Your task to perform on an android device: Open Wikipedia Image 0: 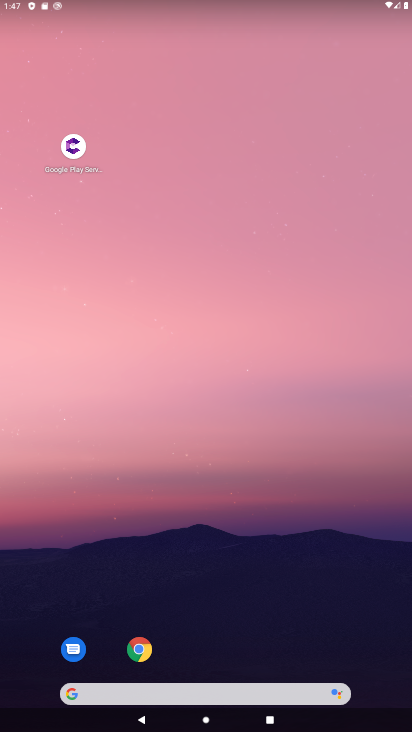
Step 0: click (140, 649)
Your task to perform on an android device: Open Wikipedia Image 1: 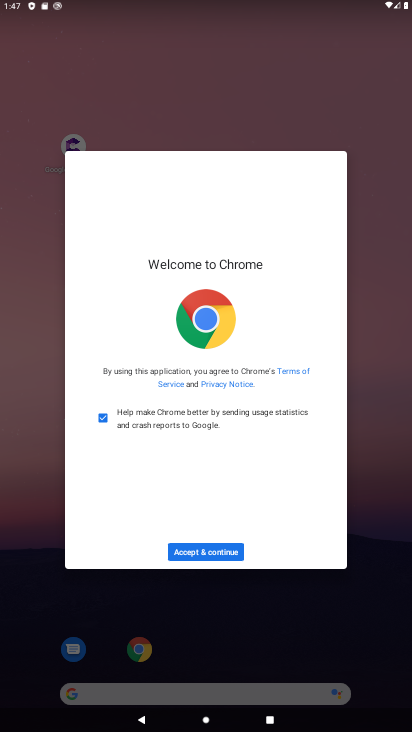
Step 1: click (199, 550)
Your task to perform on an android device: Open Wikipedia Image 2: 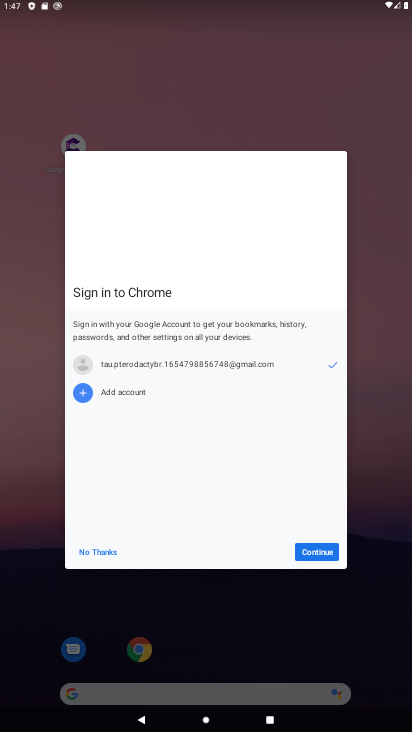
Step 2: click (318, 551)
Your task to perform on an android device: Open Wikipedia Image 3: 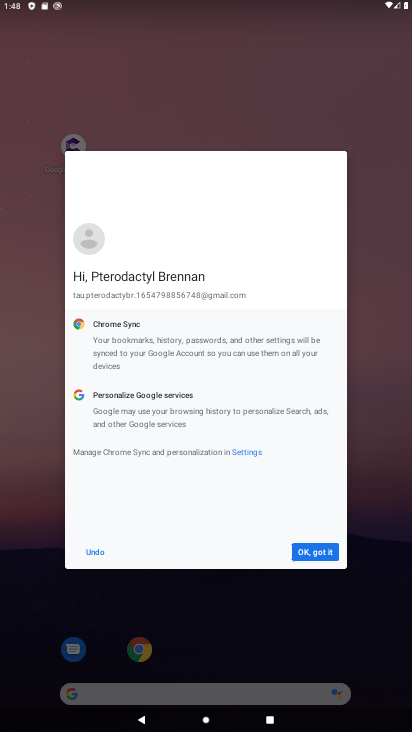
Step 3: click (311, 551)
Your task to perform on an android device: Open Wikipedia Image 4: 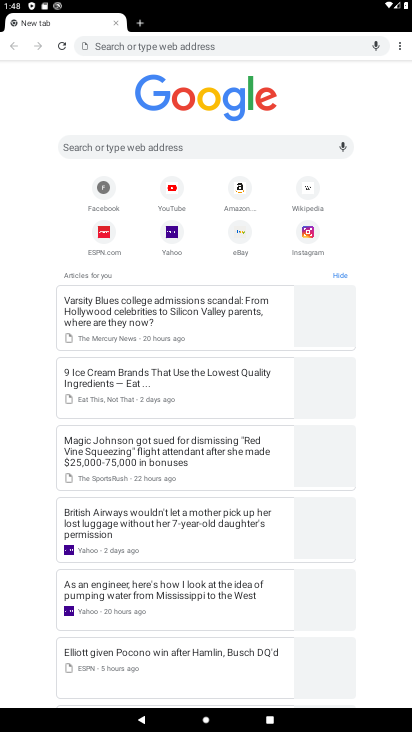
Step 4: click (112, 143)
Your task to perform on an android device: Open Wikipedia Image 5: 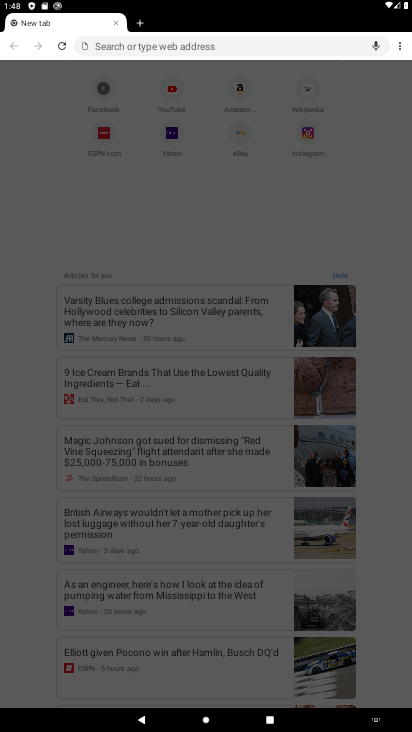
Step 5: type "wikipedia"
Your task to perform on an android device: Open Wikipedia Image 6: 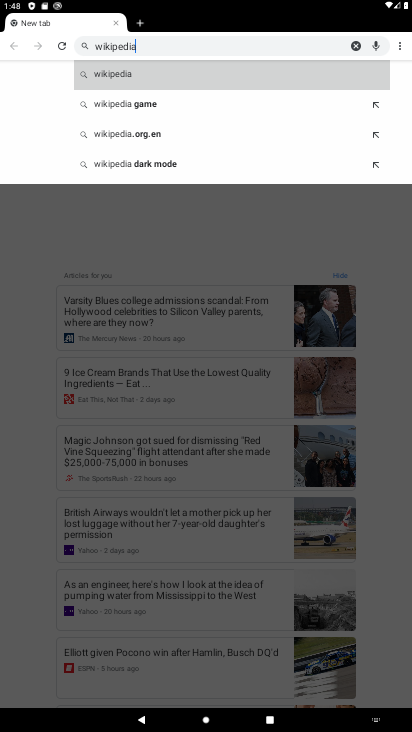
Step 6: click (120, 71)
Your task to perform on an android device: Open Wikipedia Image 7: 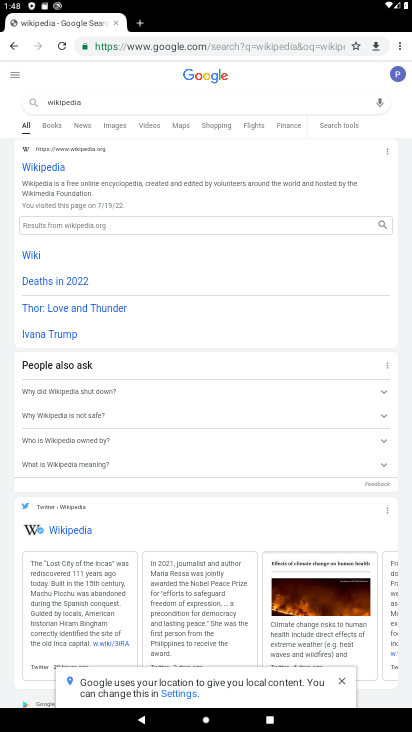
Step 7: click (45, 161)
Your task to perform on an android device: Open Wikipedia Image 8: 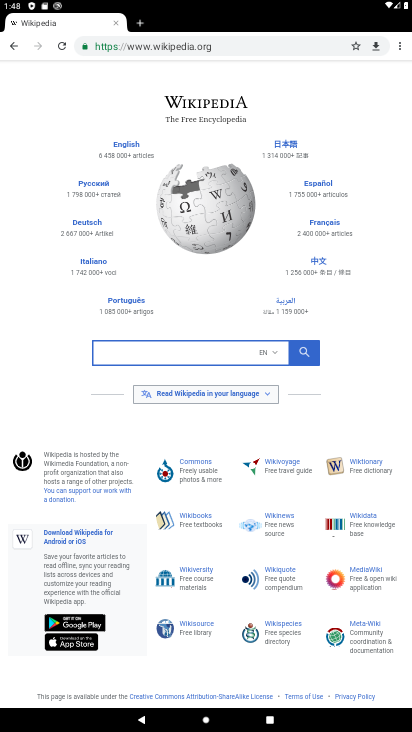
Step 8: task complete